Your task to perform on an android device: delete a single message in the gmail app Image 0: 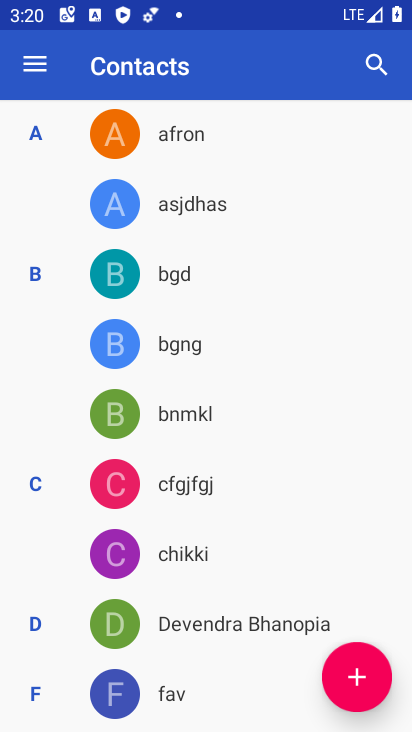
Step 0: press back button
Your task to perform on an android device: delete a single message in the gmail app Image 1: 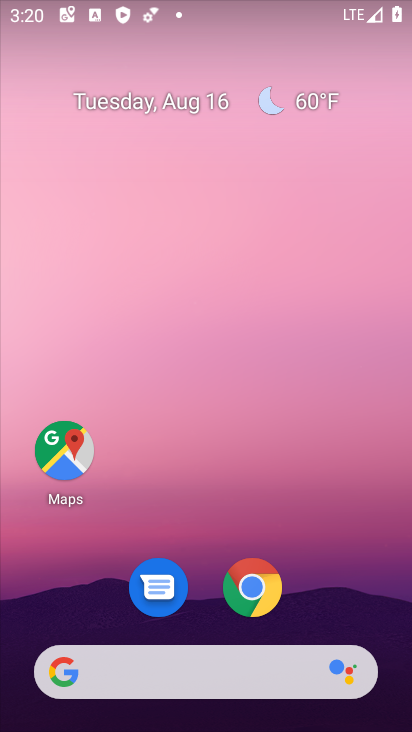
Step 1: drag from (84, 573) to (272, 17)
Your task to perform on an android device: delete a single message in the gmail app Image 2: 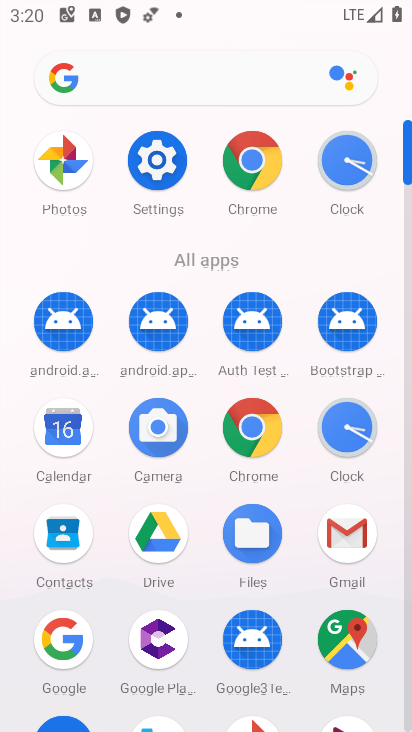
Step 2: click (347, 521)
Your task to perform on an android device: delete a single message in the gmail app Image 3: 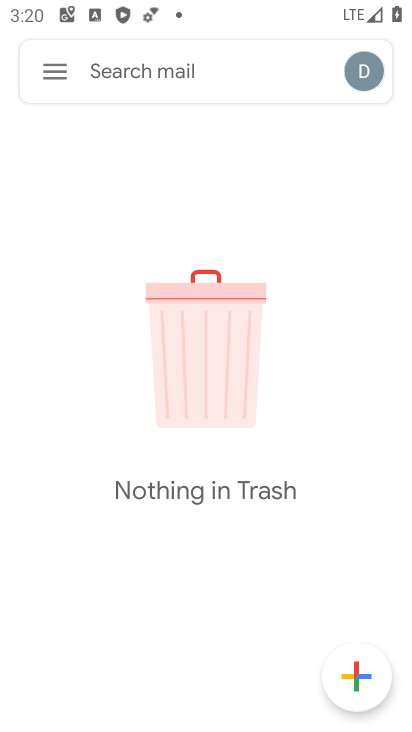
Step 3: click (59, 78)
Your task to perform on an android device: delete a single message in the gmail app Image 4: 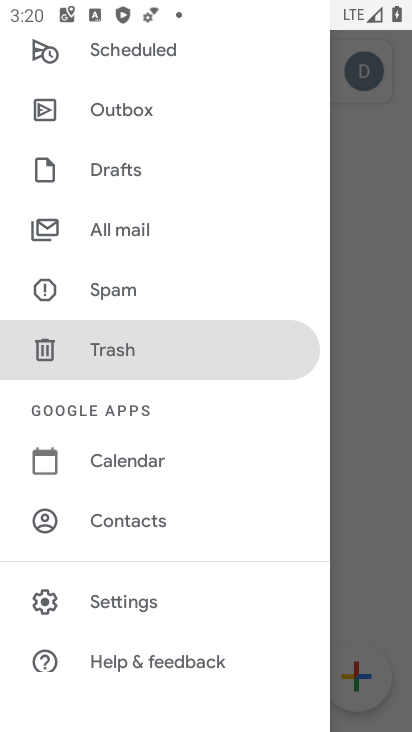
Step 4: click (150, 234)
Your task to perform on an android device: delete a single message in the gmail app Image 5: 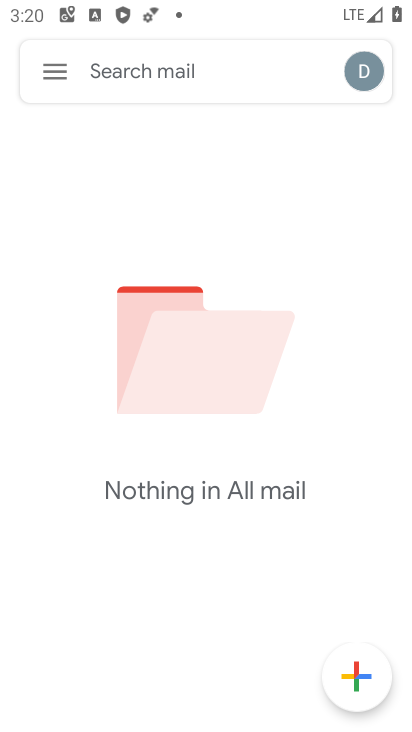
Step 5: task complete